Your task to perform on an android device: Go to Yahoo.com Image 0: 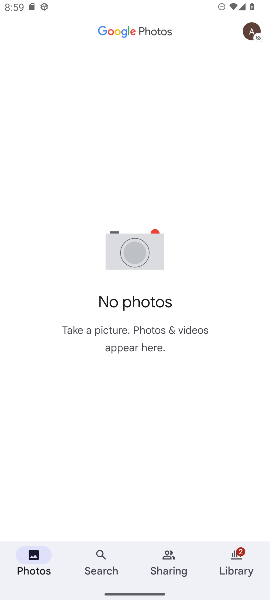
Step 0: press home button
Your task to perform on an android device: Go to Yahoo.com Image 1: 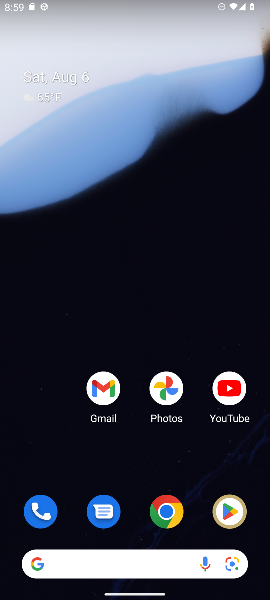
Step 1: click (172, 522)
Your task to perform on an android device: Go to Yahoo.com Image 2: 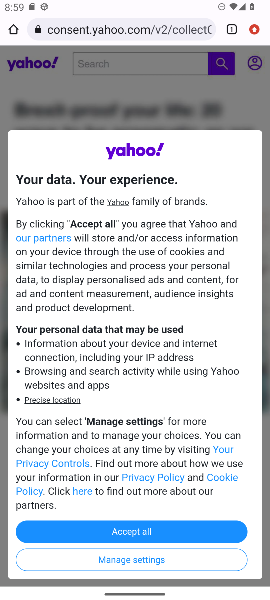
Step 2: click (130, 30)
Your task to perform on an android device: Go to Yahoo.com Image 3: 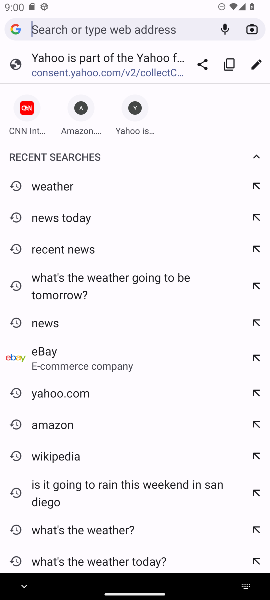
Step 3: type " Yahoo.com"
Your task to perform on an android device: Go to Yahoo.com Image 4: 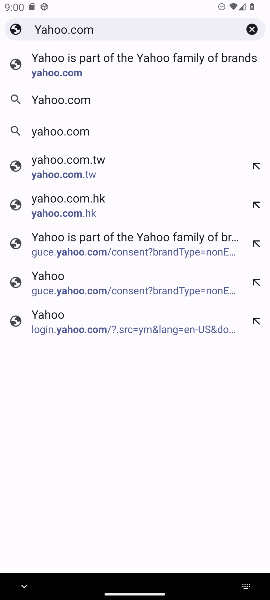
Step 4: click (65, 59)
Your task to perform on an android device: Go to Yahoo.com Image 5: 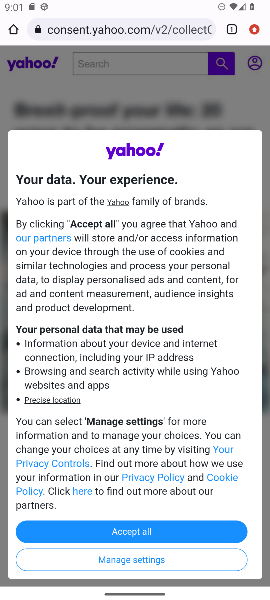
Step 5: task complete